Your task to perform on an android device: check the backup settings in the google photos Image 0: 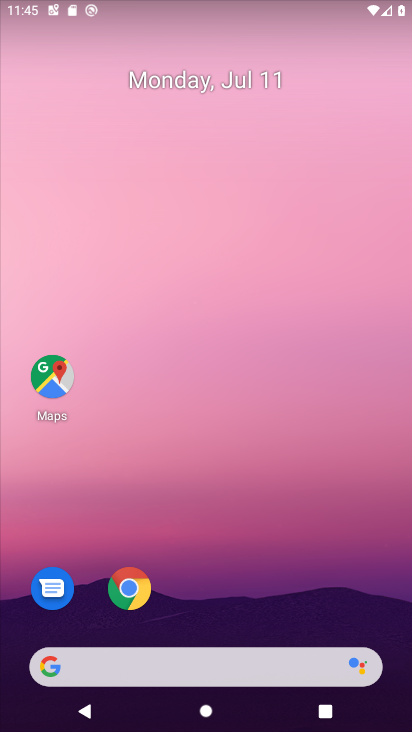
Step 0: drag from (242, 498) to (210, 150)
Your task to perform on an android device: check the backup settings in the google photos Image 1: 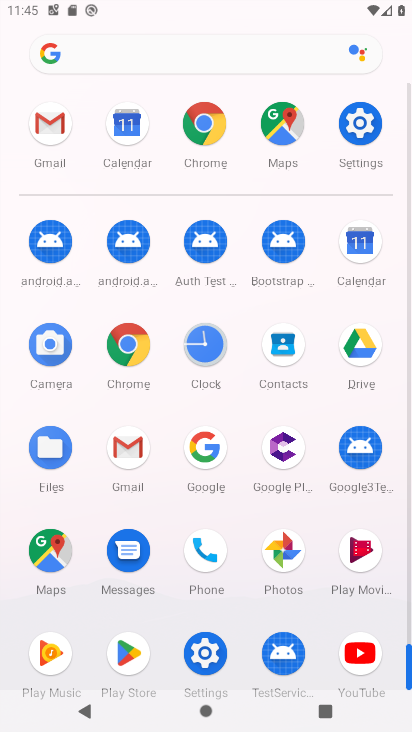
Step 1: click (286, 552)
Your task to perform on an android device: check the backup settings in the google photos Image 2: 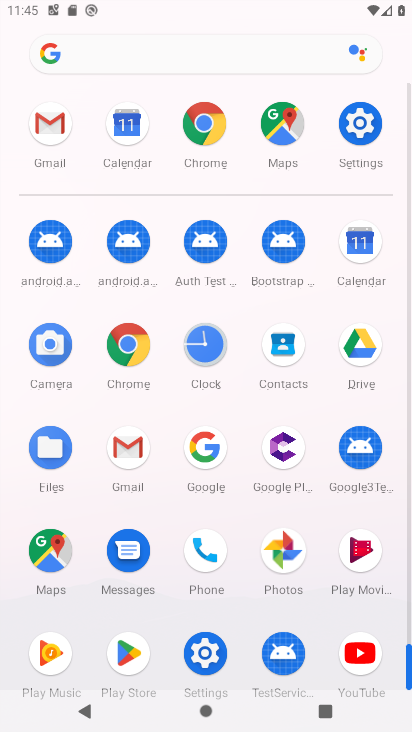
Step 2: click (286, 551)
Your task to perform on an android device: check the backup settings in the google photos Image 3: 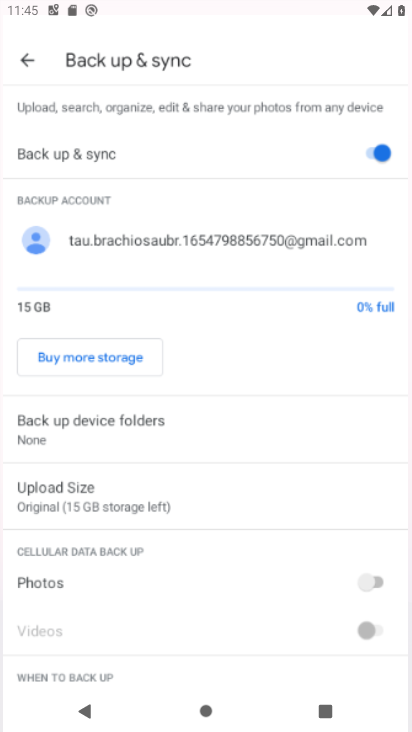
Step 3: click (286, 553)
Your task to perform on an android device: check the backup settings in the google photos Image 4: 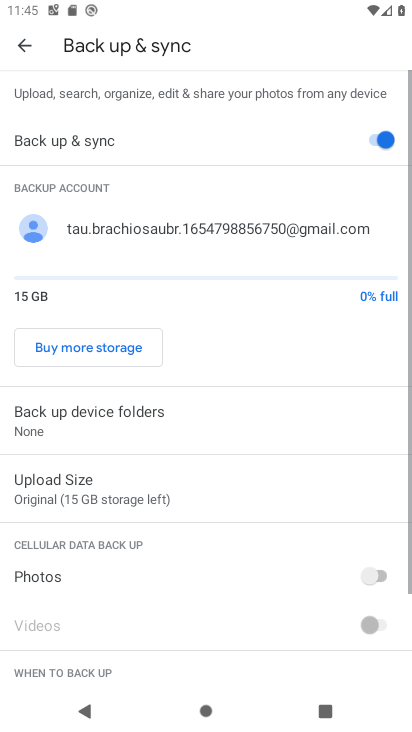
Step 4: click (284, 559)
Your task to perform on an android device: check the backup settings in the google photos Image 5: 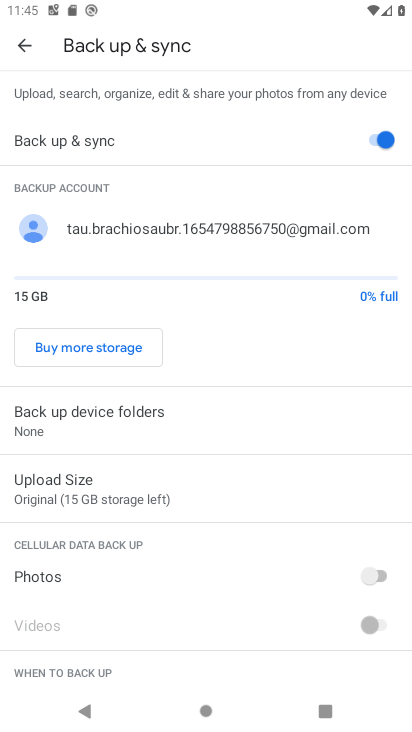
Step 5: click (28, 42)
Your task to perform on an android device: check the backup settings in the google photos Image 6: 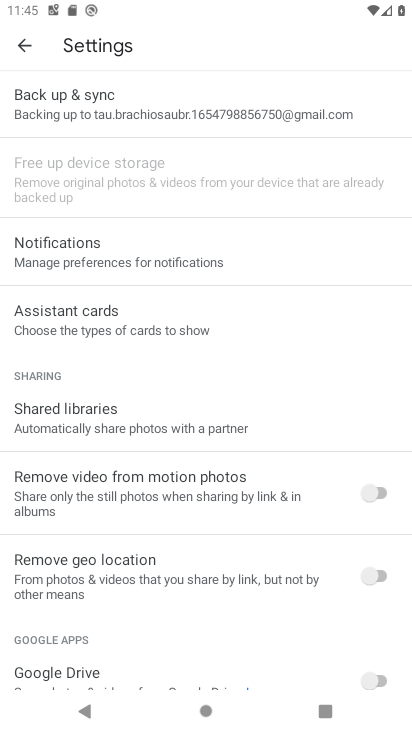
Step 6: click (27, 46)
Your task to perform on an android device: check the backup settings in the google photos Image 7: 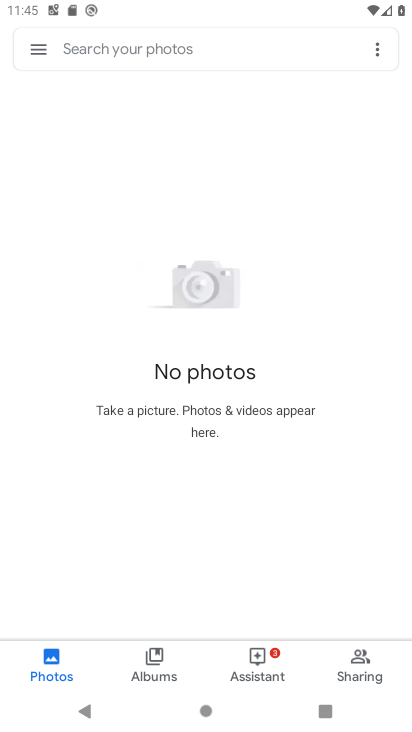
Step 7: click (208, 358)
Your task to perform on an android device: check the backup settings in the google photos Image 8: 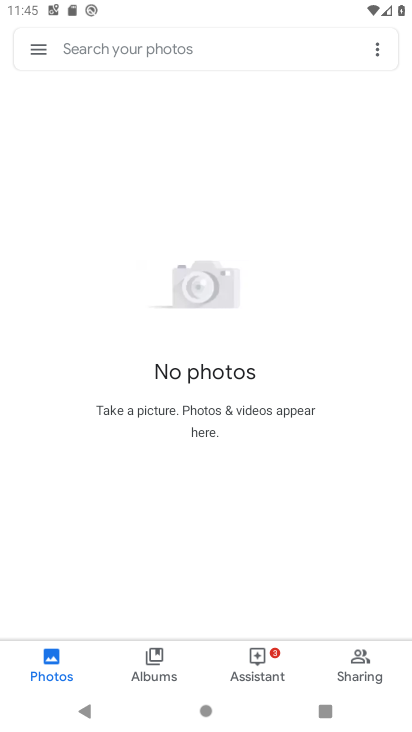
Step 8: click (196, 352)
Your task to perform on an android device: check the backup settings in the google photos Image 9: 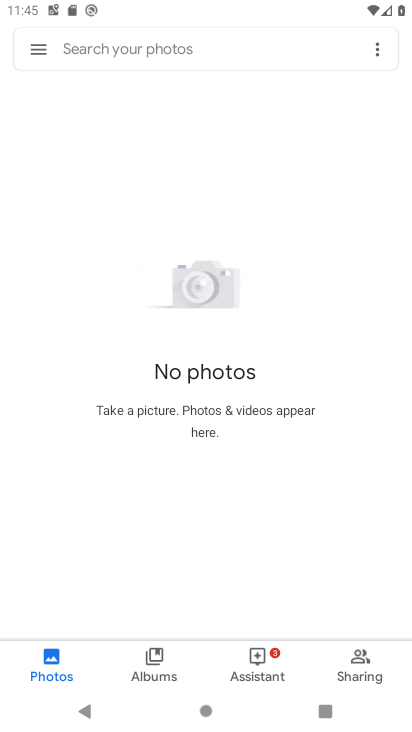
Step 9: click (39, 39)
Your task to perform on an android device: check the backup settings in the google photos Image 10: 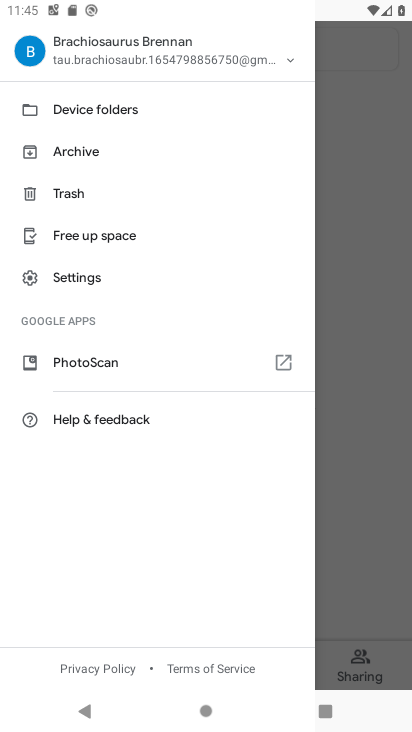
Step 10: click (67, 271)
Your task to perform on an android device: check the backup settings in the google photos Image 11: 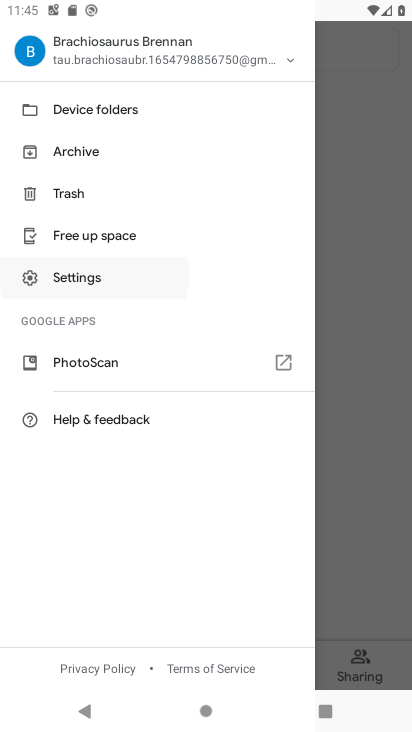
Step 11: click (67, 271)
Your task to perform on an android device: check the backup settings in the google photos Image 12: 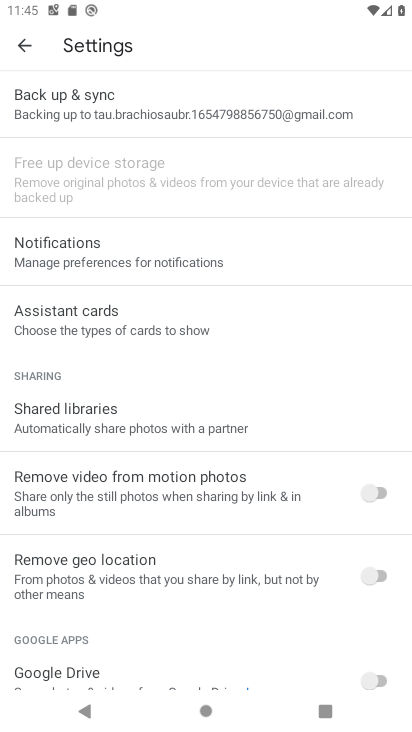
Step 12: click (58, 92)
Your task to perform on an android device: check the backup settings in the google photos Image 13: 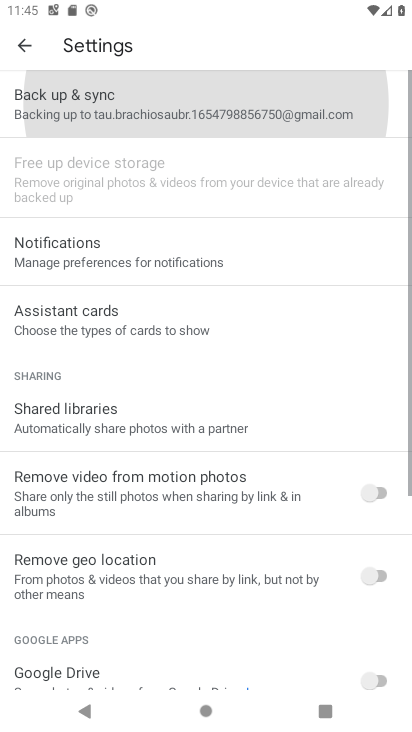
Step 13: click (58, 92)
Your task to perform on an android device: check the backup settings in the google photos Image 14: 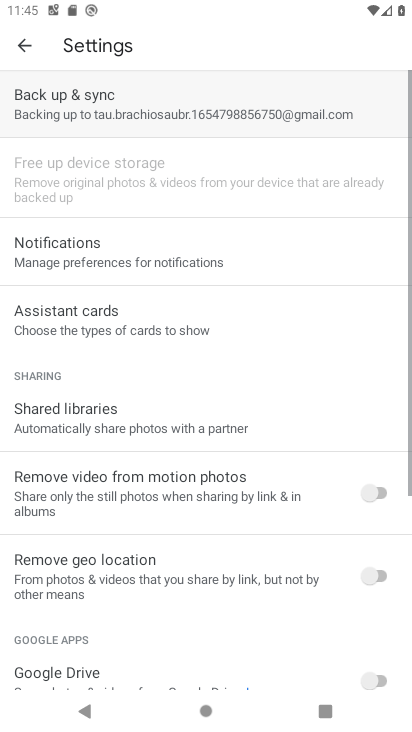
Step 14: click (58, 92)
Your task to perform on an android device: check the backup settings in the google photos Image 15: 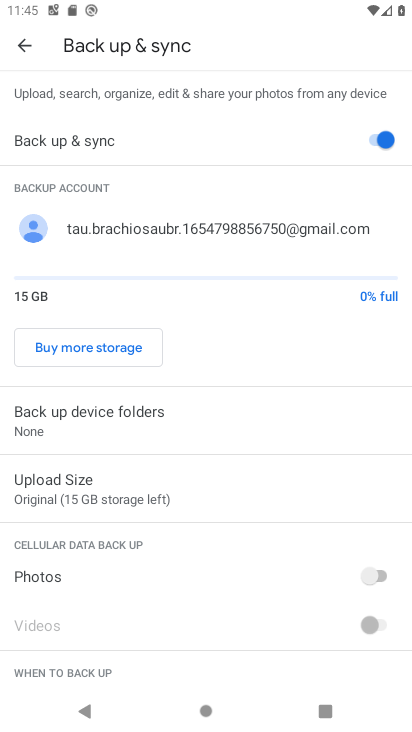
Step 15: drag from (96, 588) to (93, 309)
Your task to perform on an android device: check the backup settings in the google photos Image 16: 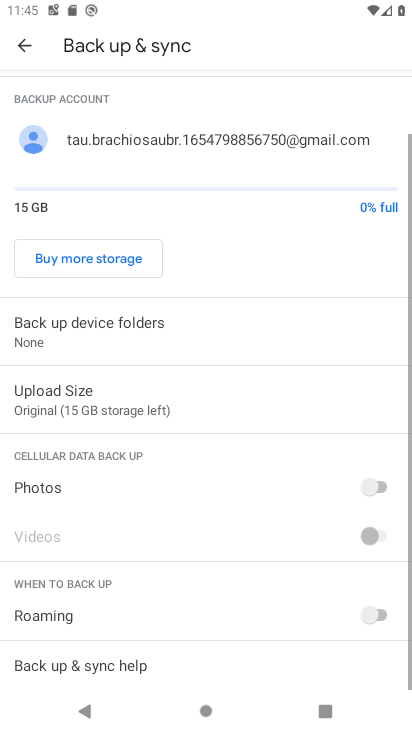
Step 16: drag from (101, 474) to (106, 95)
Your task to perform on an android device: check the backup settings in the google photos Image 17: 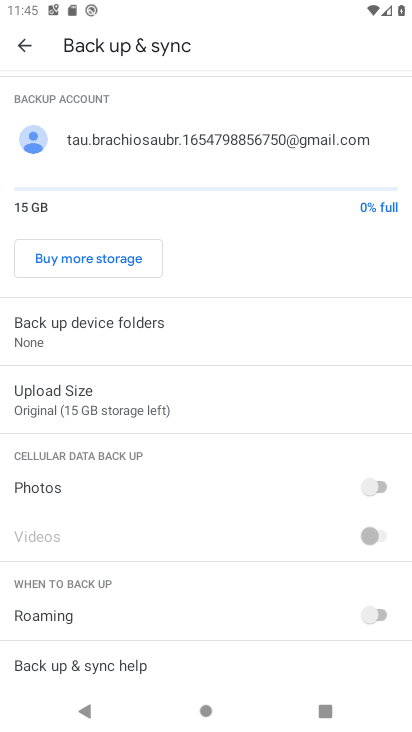
Step 17: drag from (170, 331) to (213, 619)
Your task to perform on an android device: check the backup settings in the google photos Image 18: 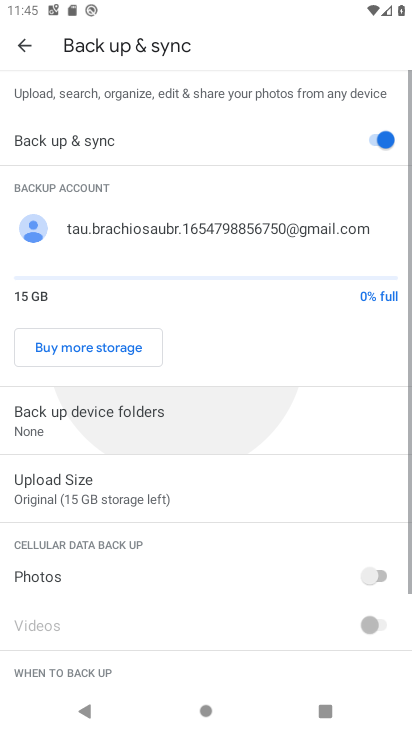
Step 18: drag from (194, 392) to (296, 693)
Your task to perform on an android device: check the backup settings in the google photos Image 19: 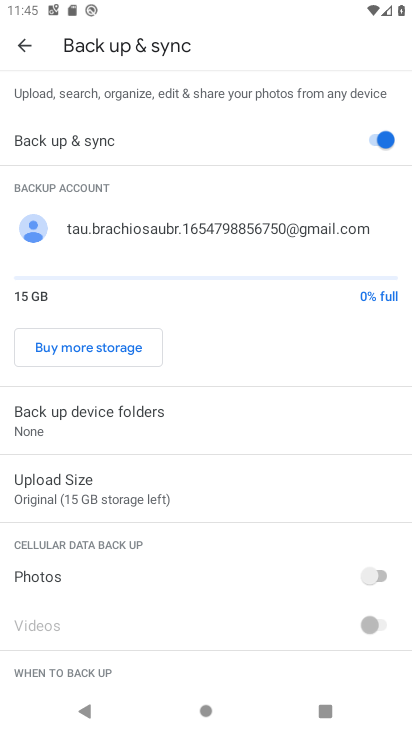
Step 19: drag from (131, 170) to (186, 411)
Your task to perform on an android device: check the backup settings in the google photos Image 20: 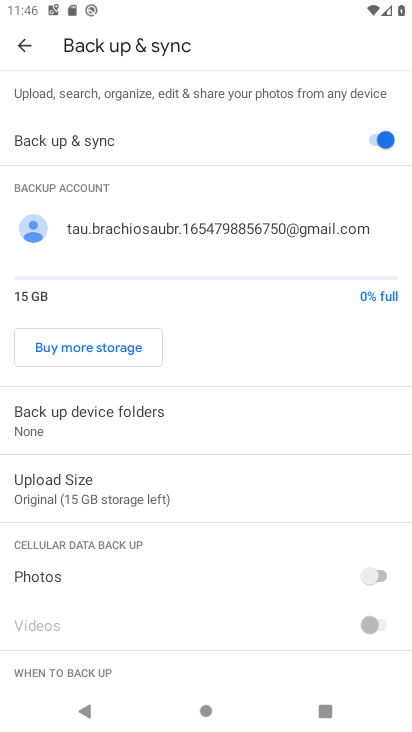
Step 20: click (154, 100)
Your task to perform on an android device: check the backup settings in the google photos Image 21: 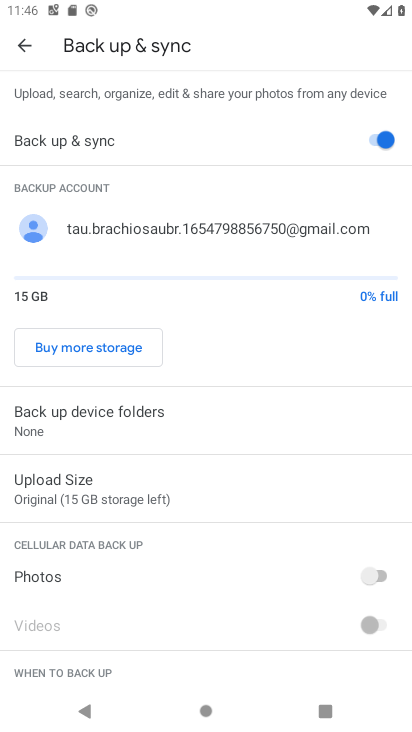
Step 21: task complete